Your task to perform on an android device: Go to network settings Image 0: 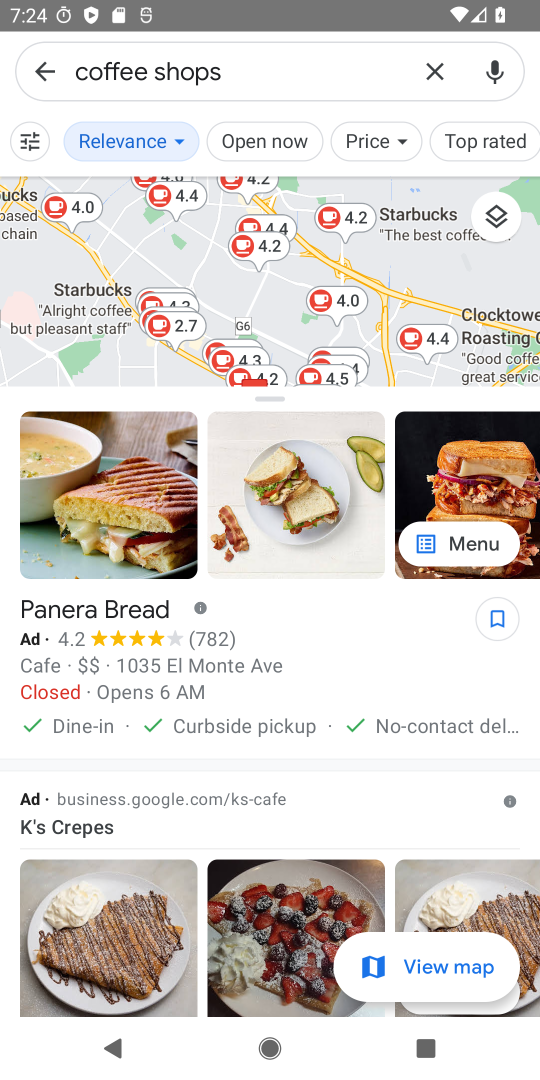
Step 0: task complete